Your task to perform on an android device: turn off airplane mode Image 0: 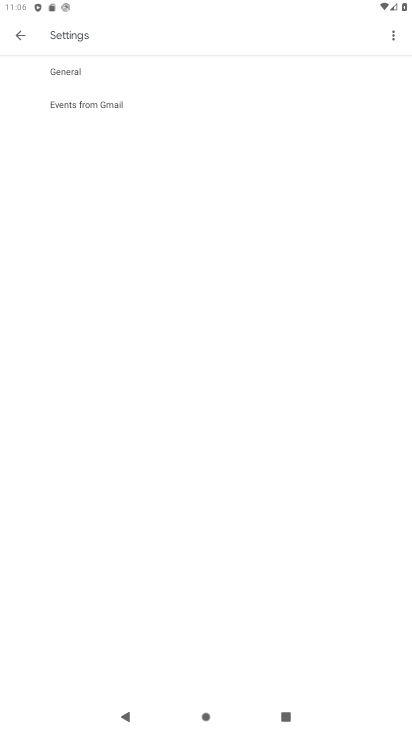
Step 0: press home button
Your task to perform on an android device: turn off airplane mode Image 1: 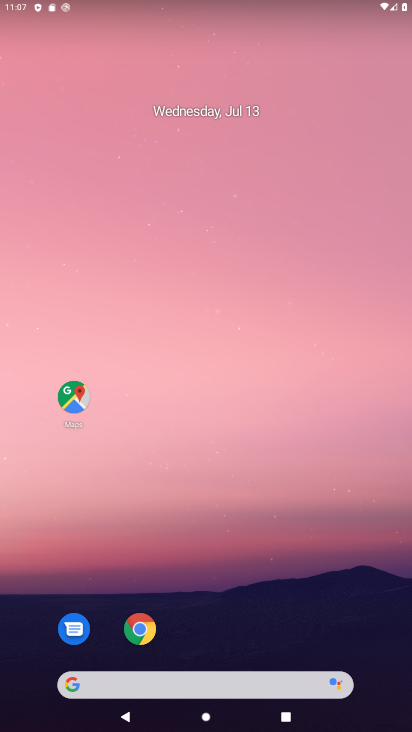
Step 1: drag from (213, 658) to (242, 167)
Your task to perform on an android device: turn off airplane mode Image 2: 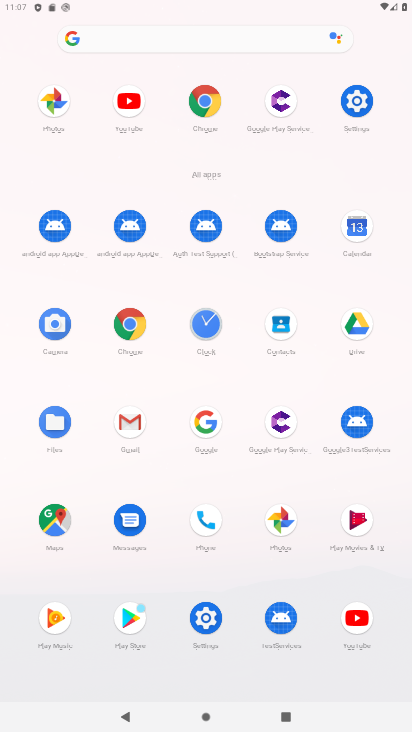
Step 2: click (209, 623)
Your task to perform on an android device: turn off airplane mode Image 3: 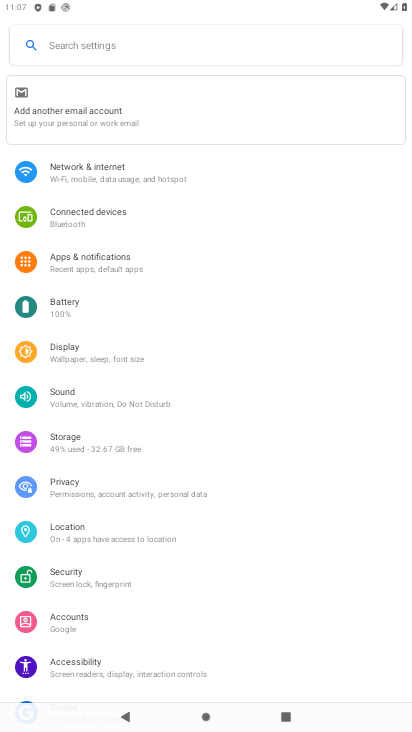
Step 3: click (108, 182)
Your task to perform on an android device: turn off airplane mode Image 4: 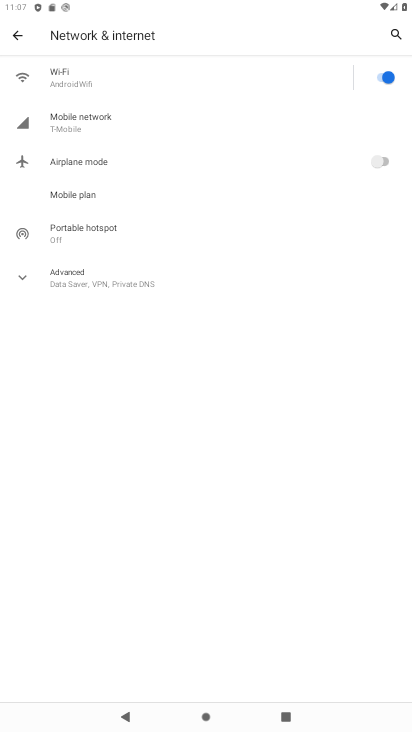
Step 4: task complete